Your task to perform on an android device: Go to Google maps Image 0: 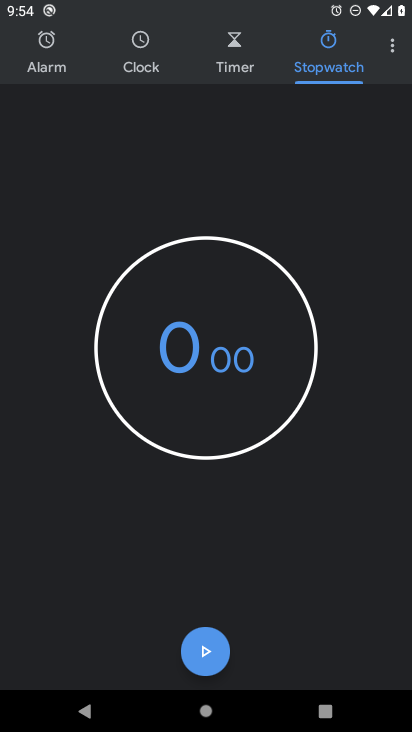
Step 0: press home button
Your task to perform on an android device: Go to Google maps Image 1: 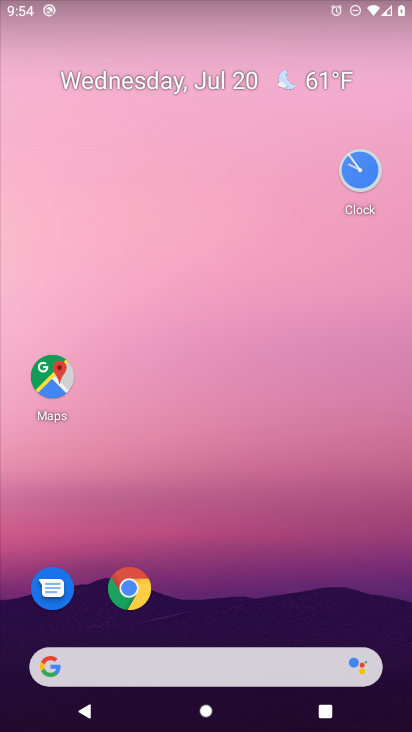
Step 1: click (55, 365)
Your task to perform on an android device: Go to Google maps Image 2: 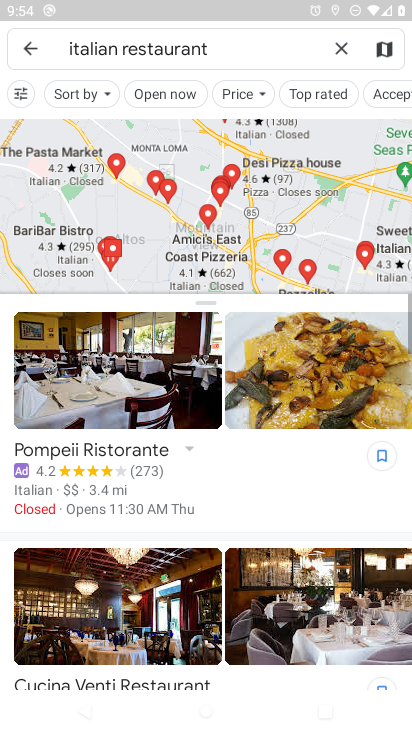
Step 2: click (341, 47)
Your task to perform on an android device: Go to Google maps Image 3: 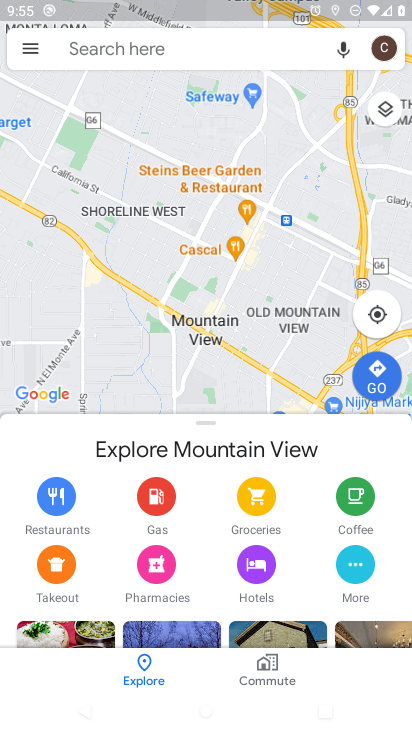
Step 3: task complete